Your task to perform on an android device: check data usage Image 0: 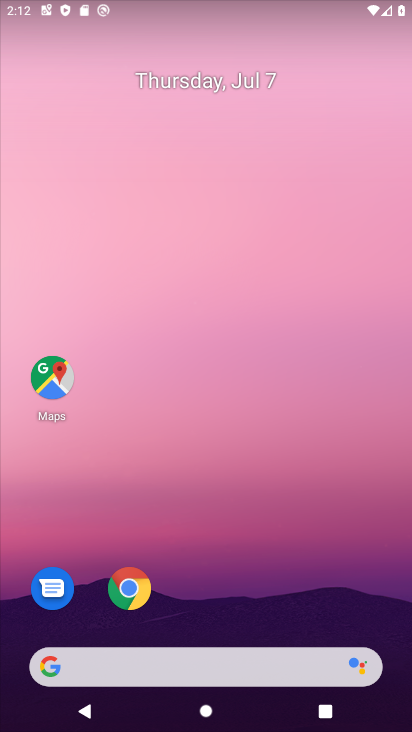
Step 0: drag from (201, 645) to (276, 2)
Your task to perform on an android device: check data usage Image 1: 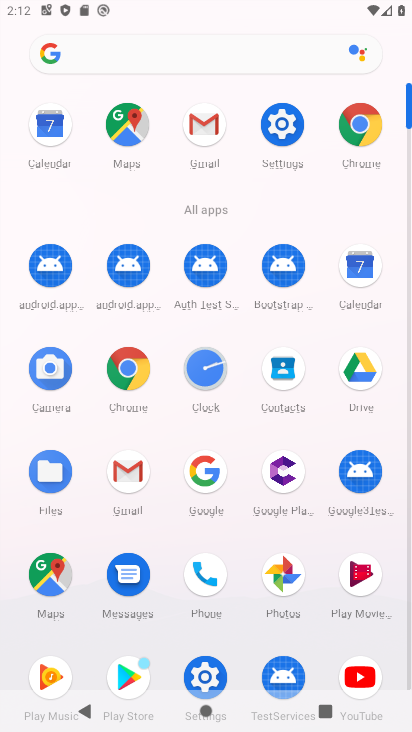
Step 1: click (276, 115)
Your task to perform on an android device: check data usage Image 2: 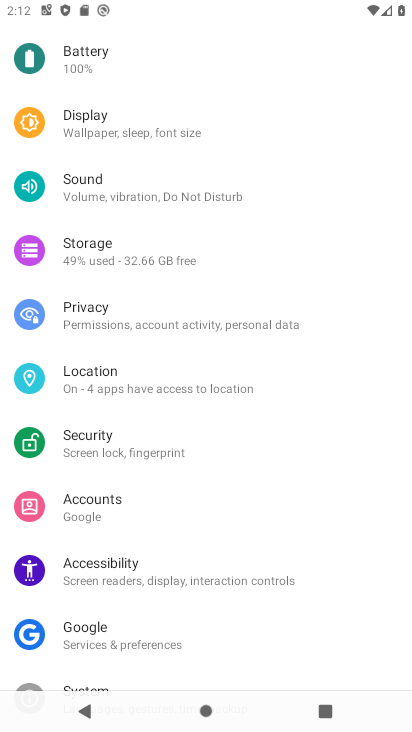
Step 2: drag from (181, 161) to (186, 731)
Your task to perform on an android device: check data usage Image 3: 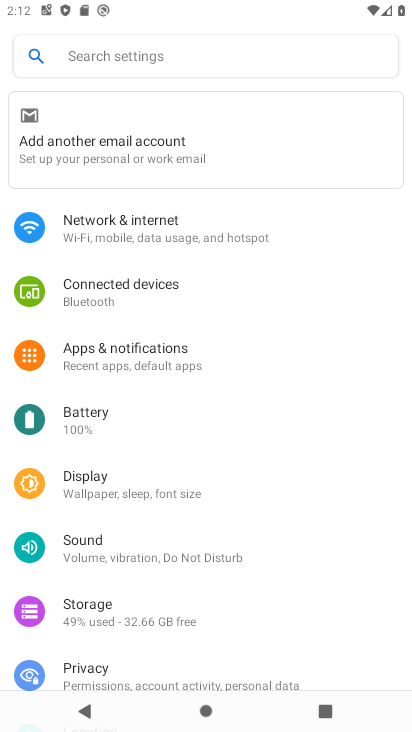
Step 3: click (171, 230)
Your task to perform on an android device: check data usage Image 4: 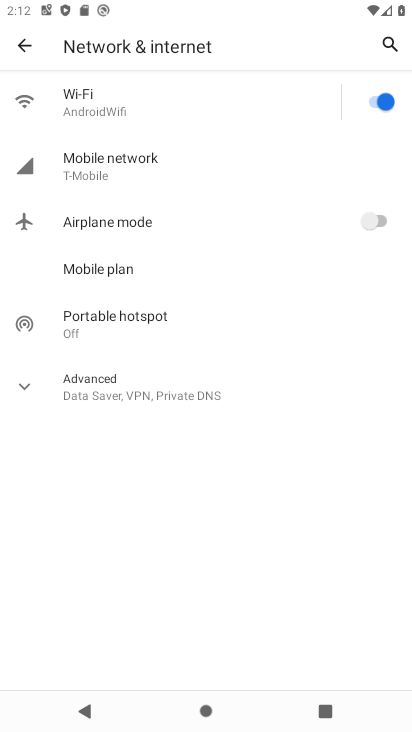
Step 4: click (102, 177)
Your task to perform on an android device: check data usage Image 5: 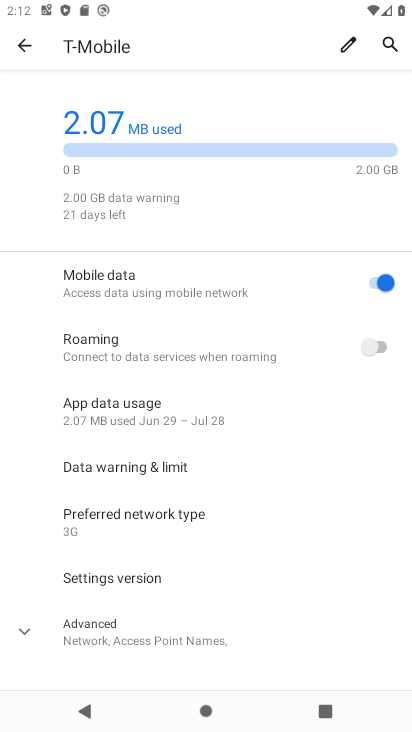
Step 5: click (142, 417)
Your task to perform on an android device: check data usage Image 6: 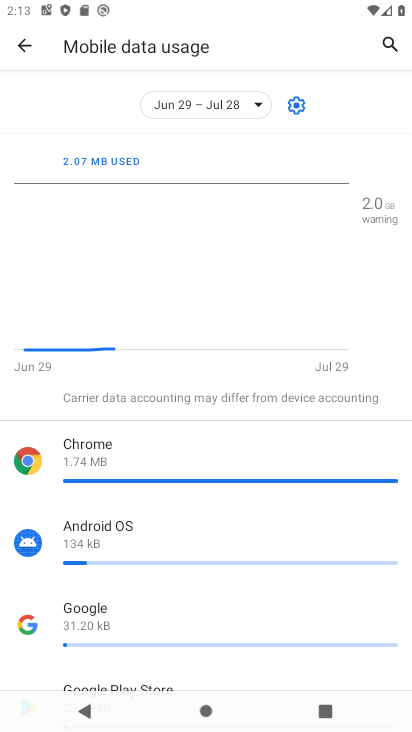
Step 6: task complete